Your task to perform on an android device: View the shopping cart on amazon. Add usb-b to the cart on amazon, then select checkout. Image 0: 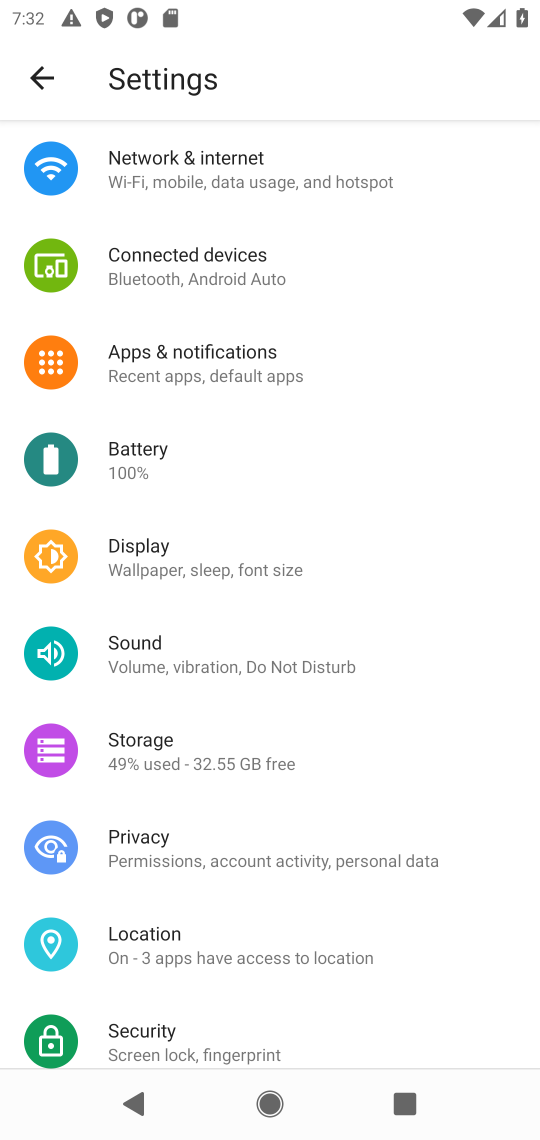
Step 0: press home button
Your task to perform on an android device: View the shopping cart on amazon. Add usb-b to the cart on amazon, then select checkout. Image 1: 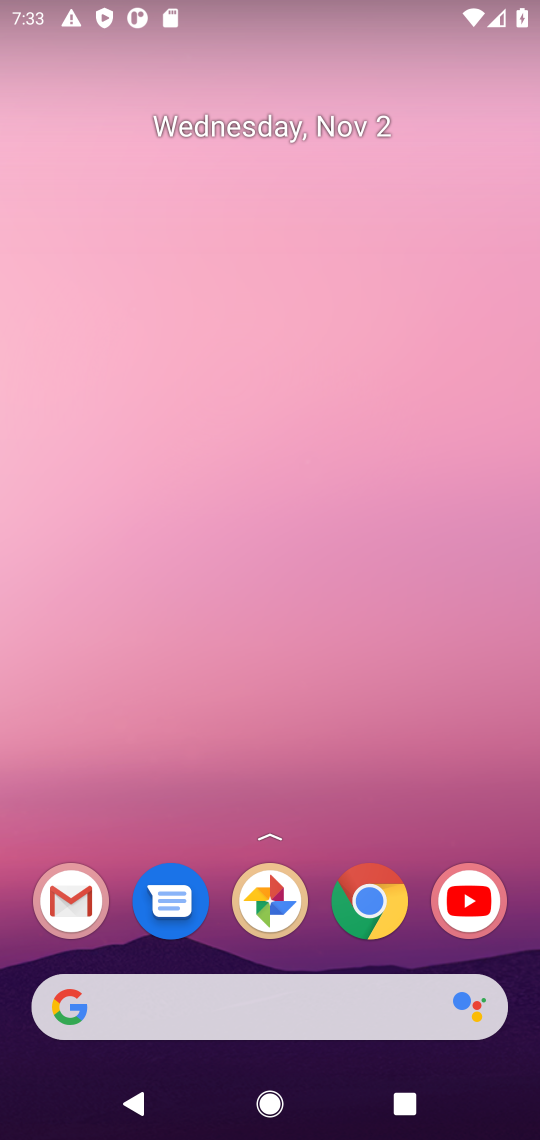
Step 1: click (364, 896)
Your task to perform on an android device: View the shopping cart on amazon. Add usb-b to the cart on amazon, then select checkout. Image 2: 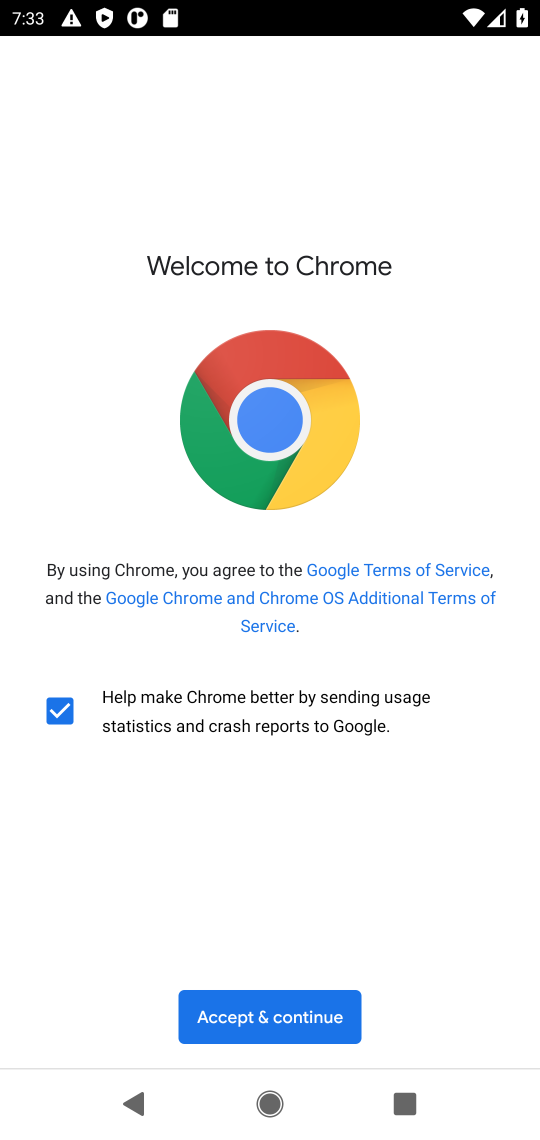
Step 2: click (271, 1034)
Your task to perform on an android device: View the shopping cart on amazon. Add usb-b to the cart on amazon, then select checkout. Image 3: 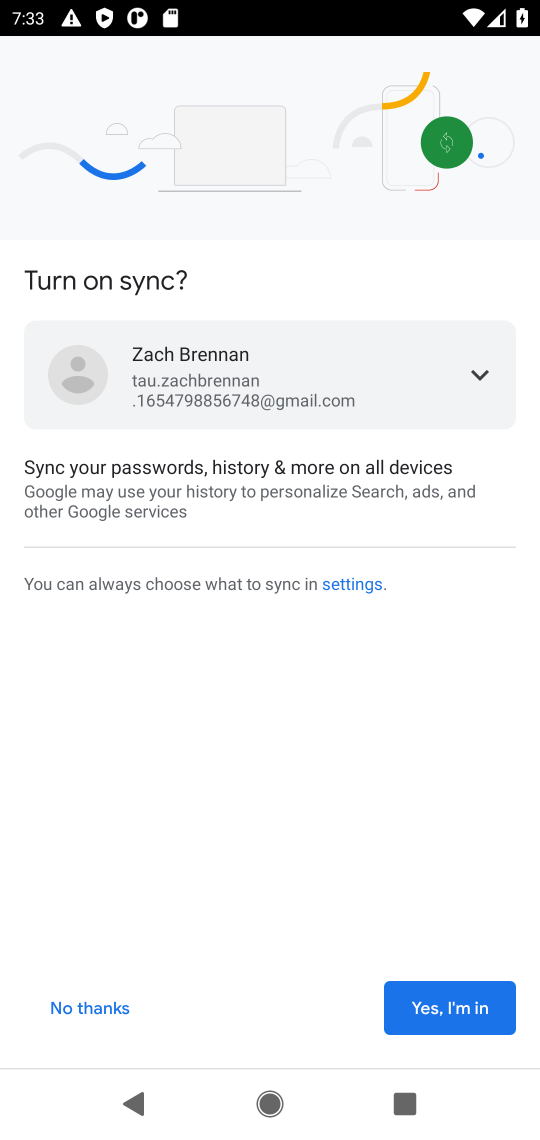
Step 3: click (74, 1011)
Your task to perform on an android device: View the shopping cart on amazon. Add usb-b to the cart on amazon, then select checkout. Image 4: 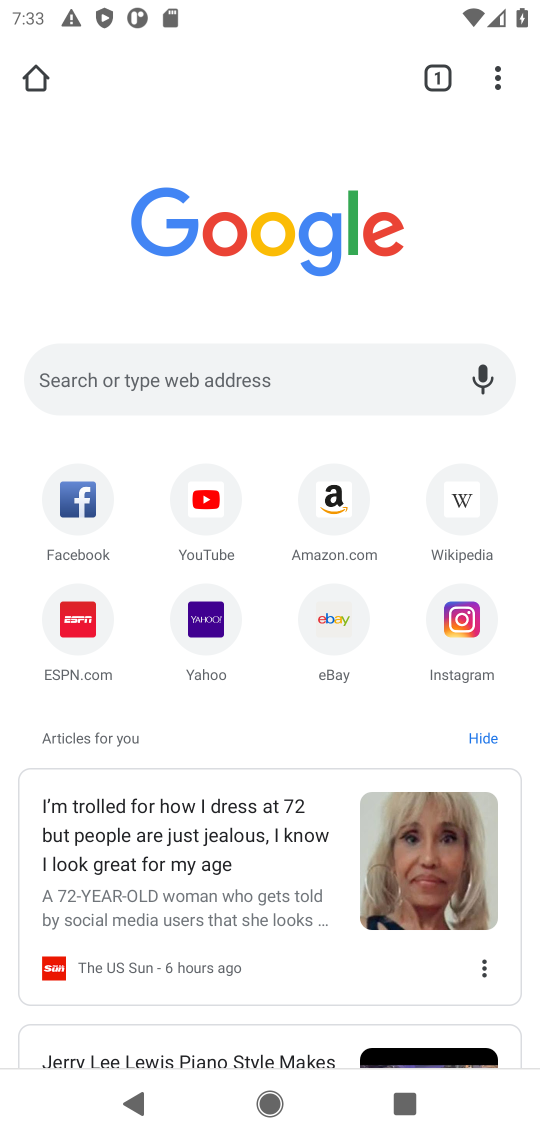
Step 4: click (322, 496)
Your task to perform on an android device: View the shopping cart on amazon. Add usb-b to the cart on amazon, then select checkout. Image 5: 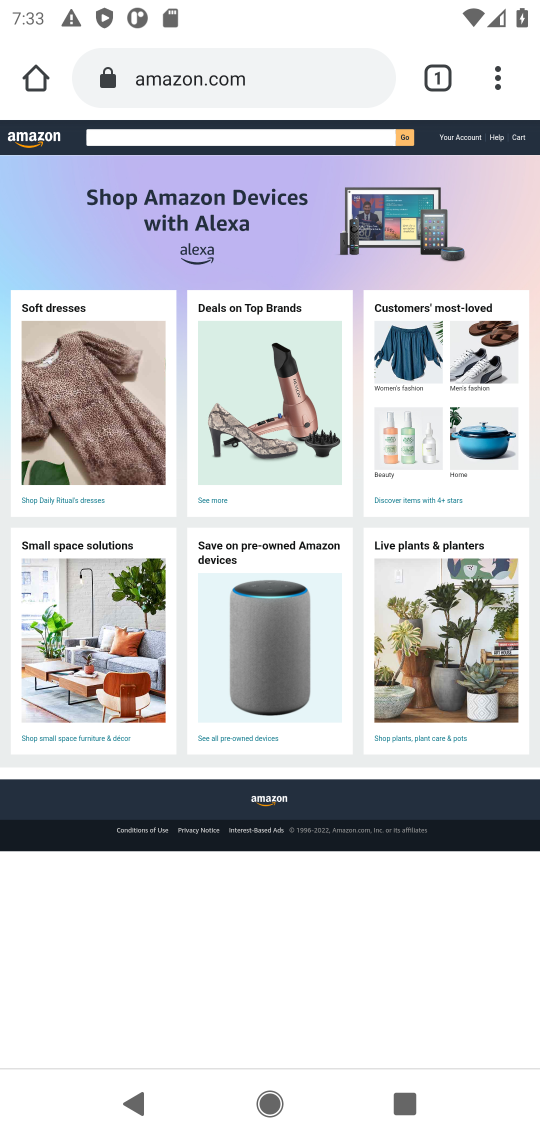
Step 5: press back button
Your task to perform on an android device: View the shopping cart on amazon. Add usb-b to the cart on amazon, then select checkout. Image 6: 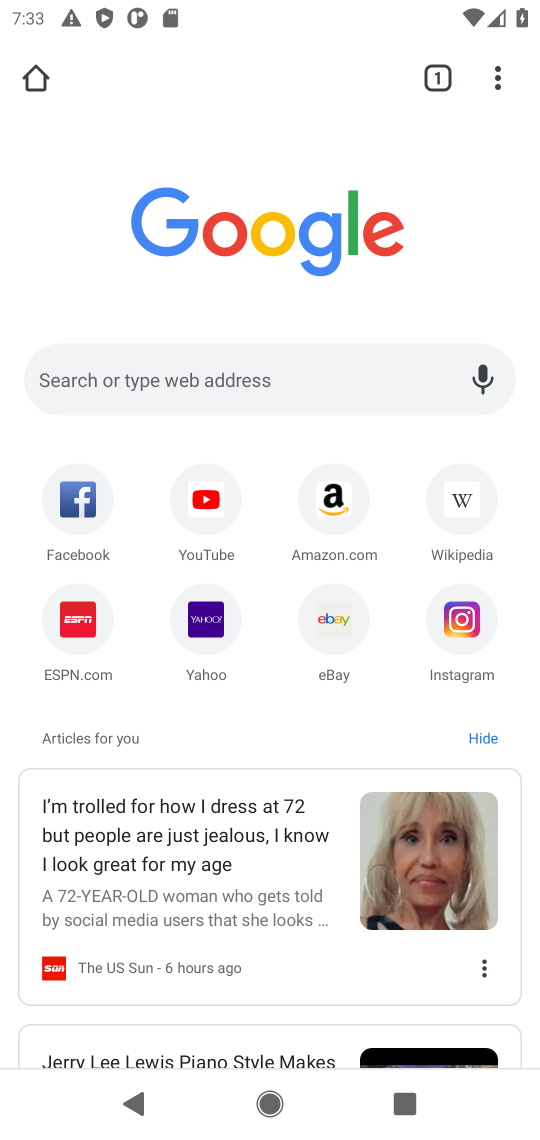
Step 6: click (285, 364)
Your task to perform on an android device: View the shopping cart on amazon. Add usb-b to the cart on amazon, then select checkout. Image 7: 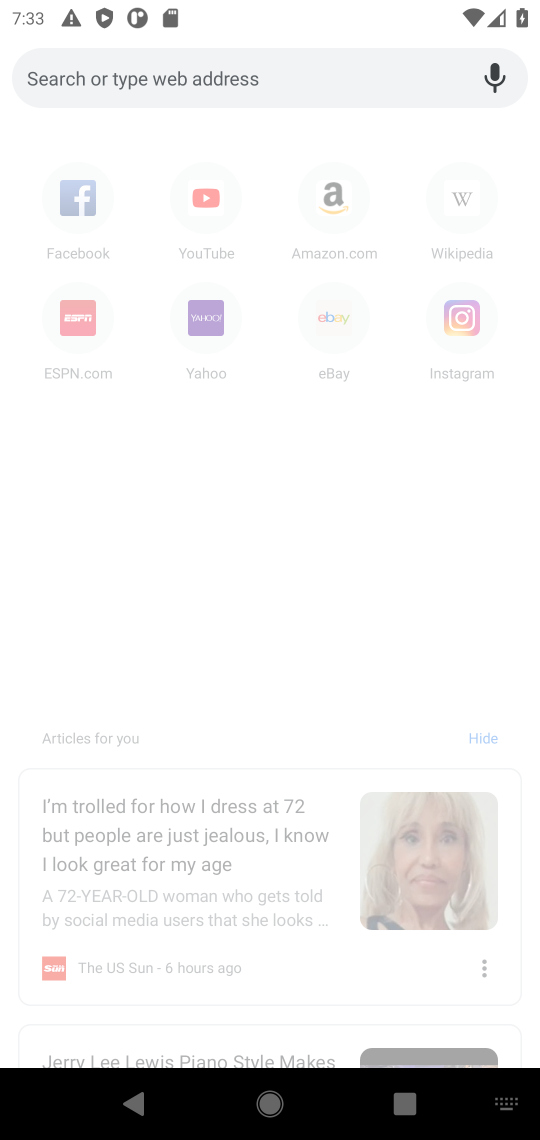
Step 7: type "amazon.com"
Your task to perform on an android device: View the shopping cart on amazon. Add usb-b to the cart on amazon, then select checkout. Image 8: 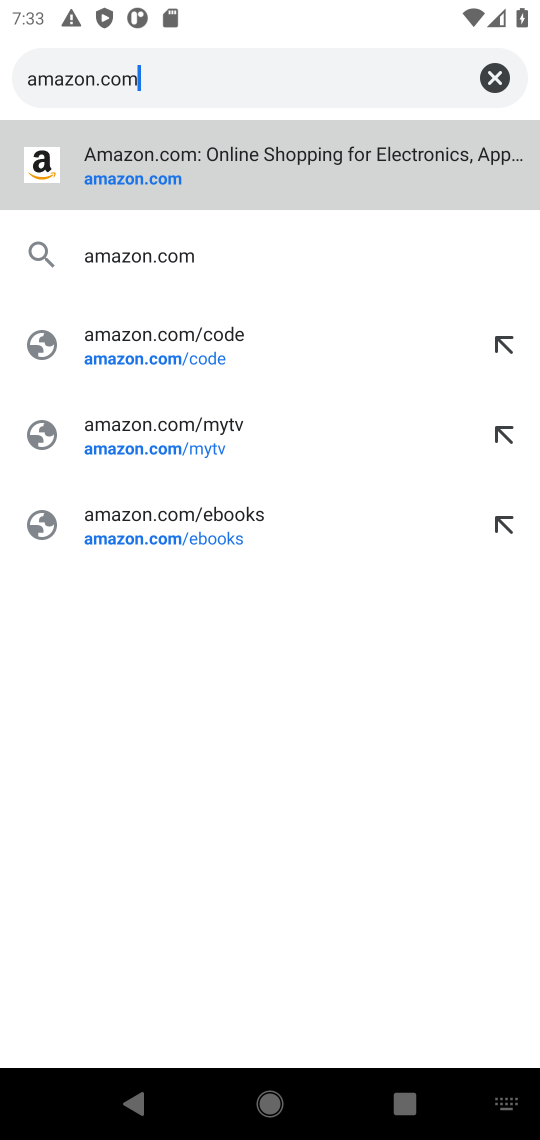
Step 8: click (122, 193)
Your task to perform on an android device: View the shopping cart on amazon. Add usb-b to the cart on amazon, then select checkout. Image 9: 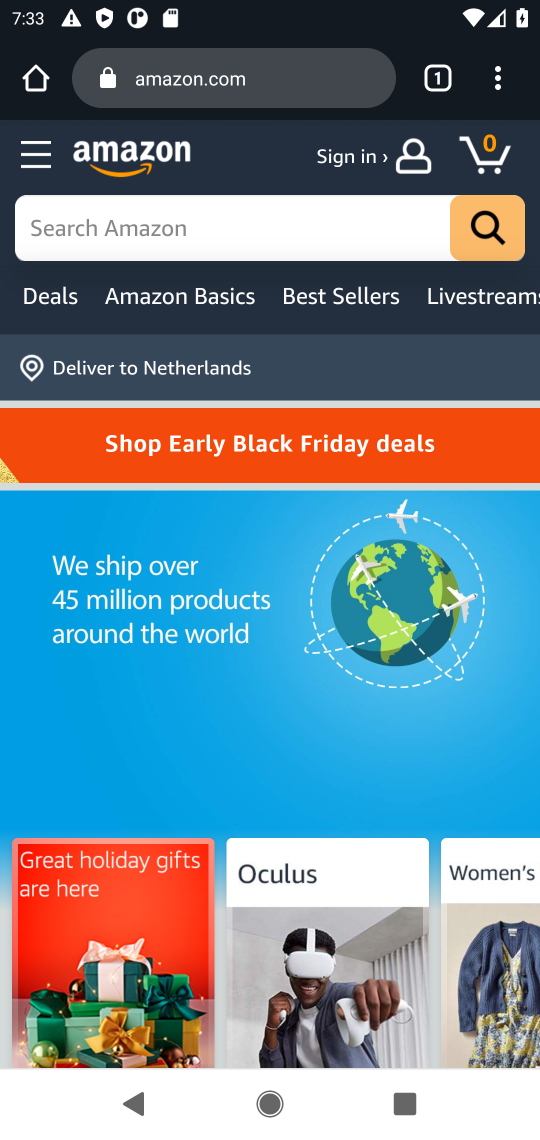
Step 9: click (499, 159)
Your task to perform on an android device: View the shopping cart on amazon. Add usb-b to the cart on amazon, then select checkout. Image 10: 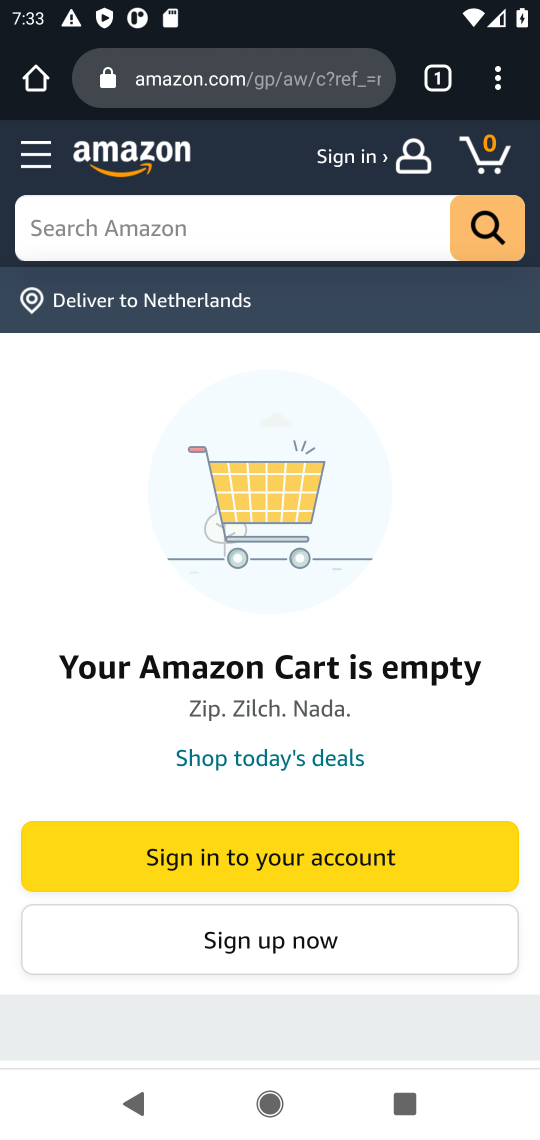
Step 10: click (259, 238)
Your task to perform on an android device: View the shopping cart on amazon. Add usb-b to the cart on amazon, then select checkout. Image 11: 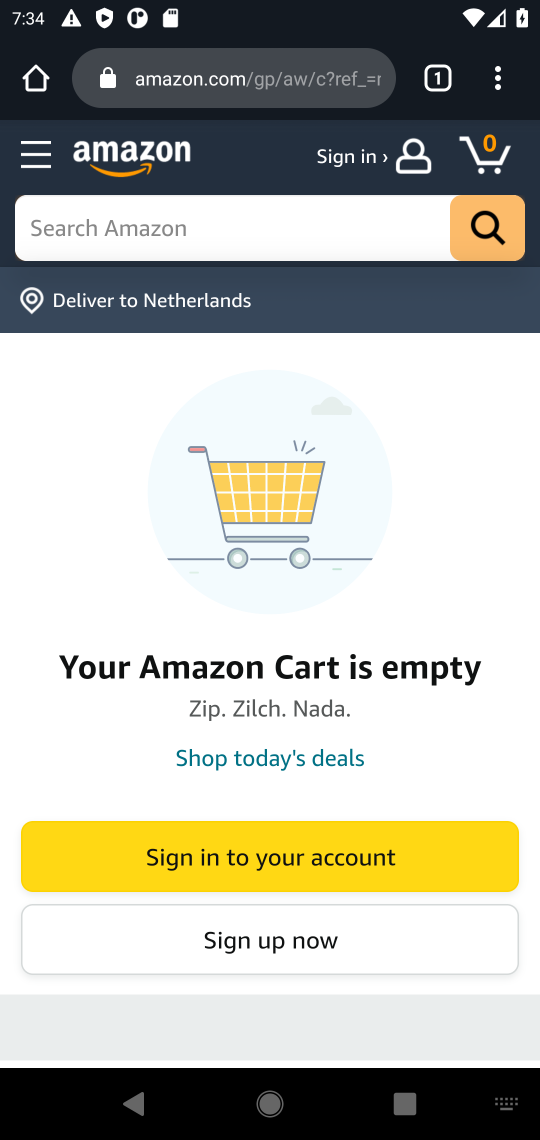
Step 11: type "usb-b"
Your task to perform on an android device: View the shopping cart on amazon. Add usb-b to the cart on amazon, then select checkout. Image 12: 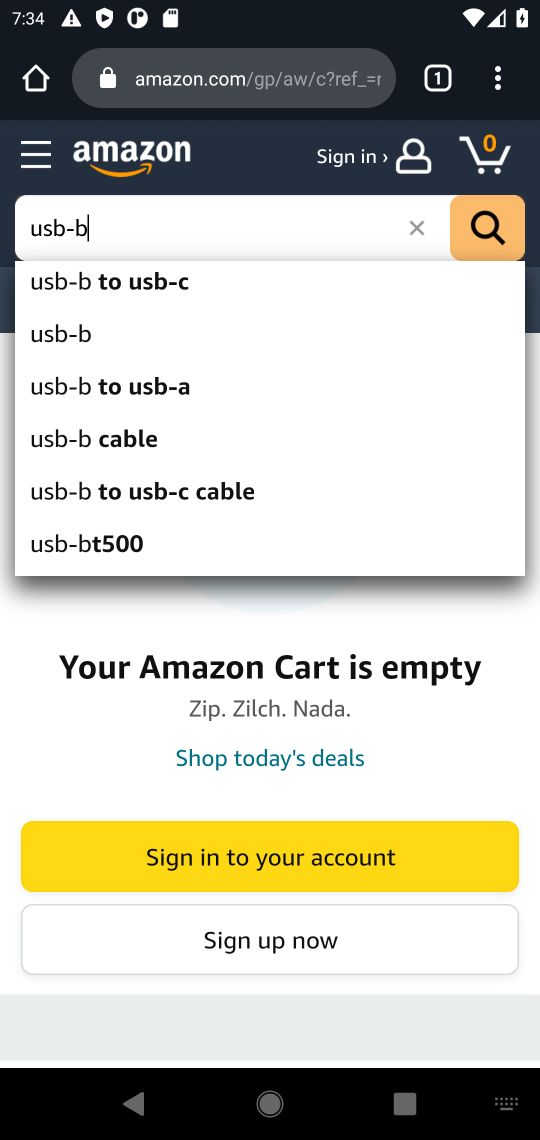
Step 12: click (79, 347)
Your task to perform on an android device: View the shopping cart on amazon. Add usb-b to the cart on amazon, then select checkout. Image 13: 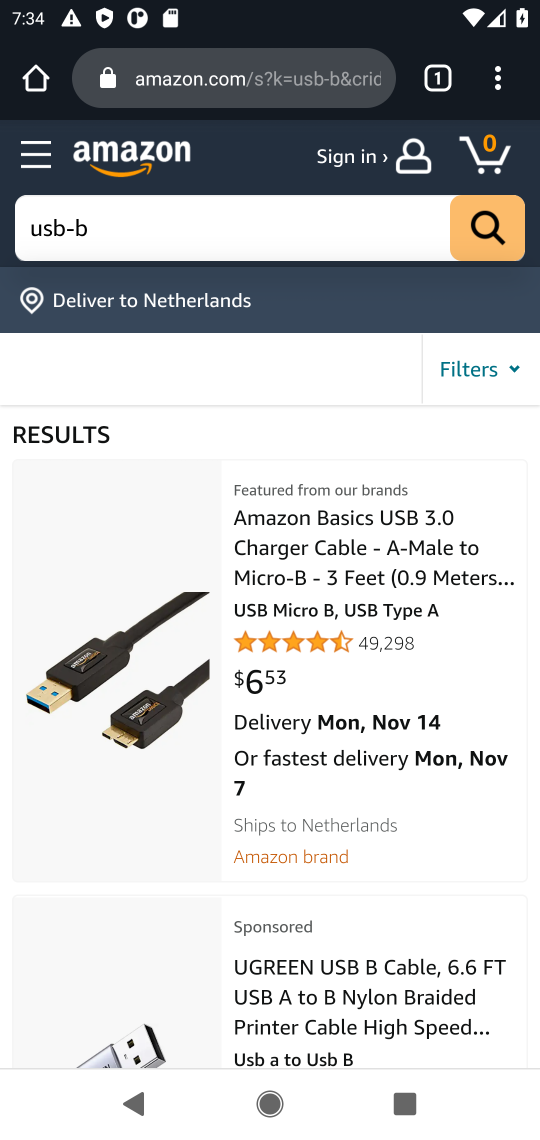
Step 13: click (163, 684)
Your task to perform on an android device: View the shopping cart on amazon. Add usb-b to the cart on amazon, then select checkout. Image 14: 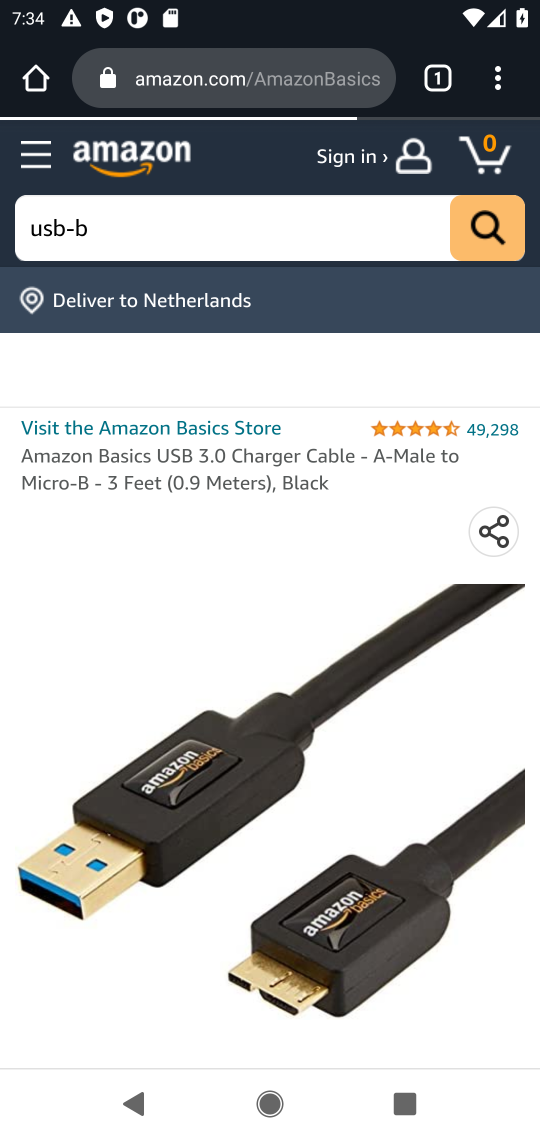
Step 14: drag from (235, 743) to (249, 303)
Your task to perform on an android device: View the shopping cart on amazon. Add usb-b to the cart on amazon, then select checkout. Image 15: 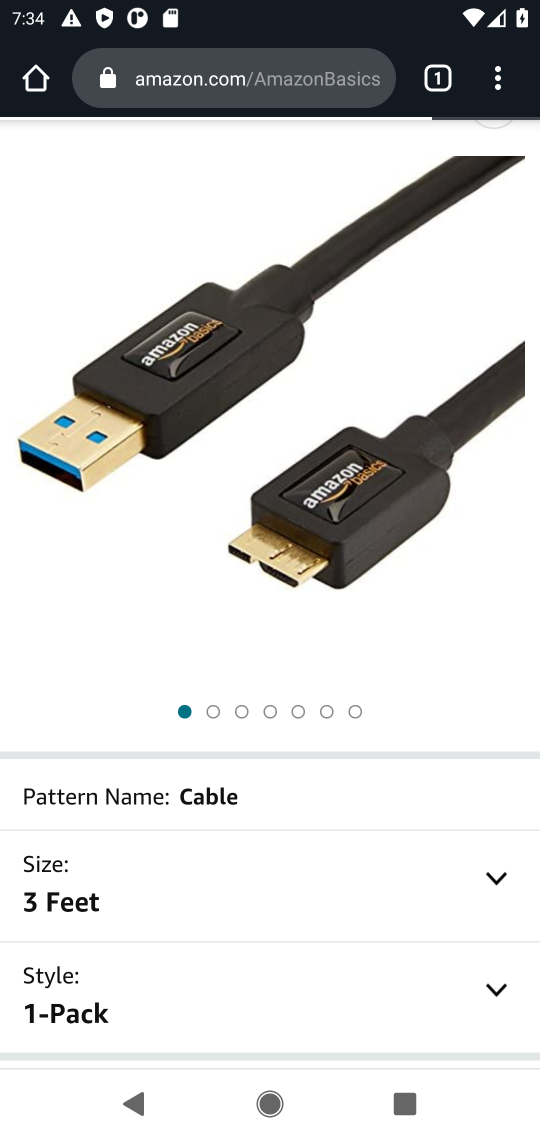
Step 15: drag from (215, 824) to (268, 330)
Your task to perform on an android device: View the shopping cart on amazon. Add usb-b to the cart on amazon, then select checkout. Image 16: 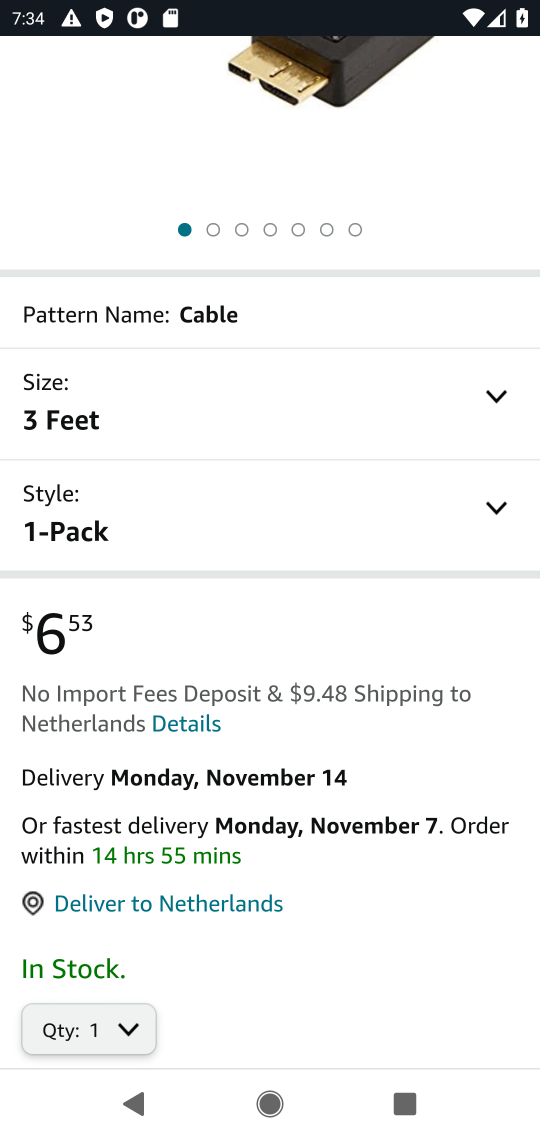
Step 16: drag from (198, 775) to (243, 354)
Your task to perform on an android device: View the shopping cart on amazon. Add usb-b to the cart on amazon, then select checkout. Image 17: 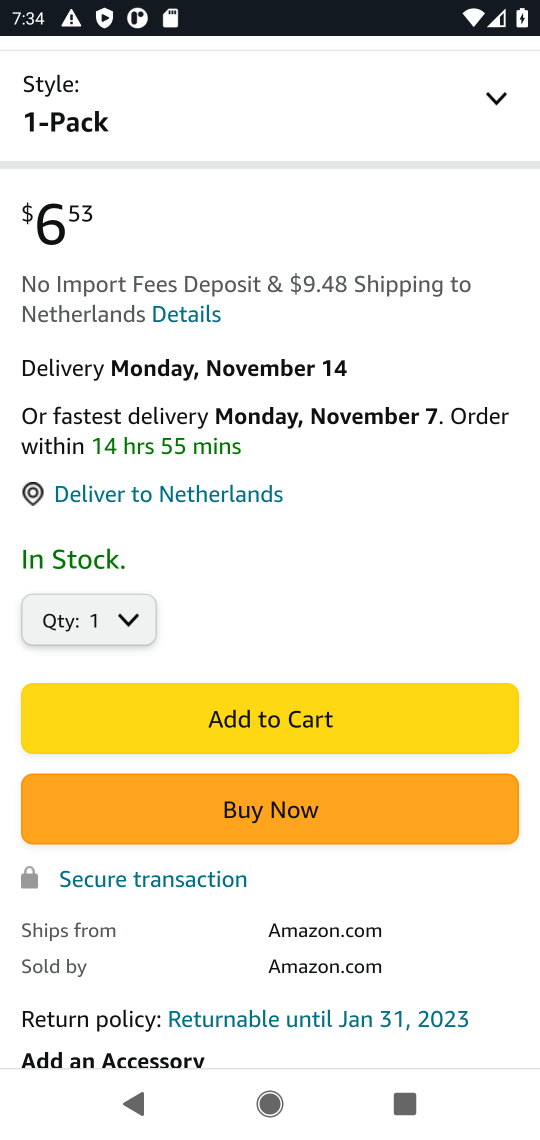
Step 17: click (252, 724)
Your task to perform on an android device: View the shopping cart on amazon. Add usb-b to the cart on amazon, then select checkout. Image 18: 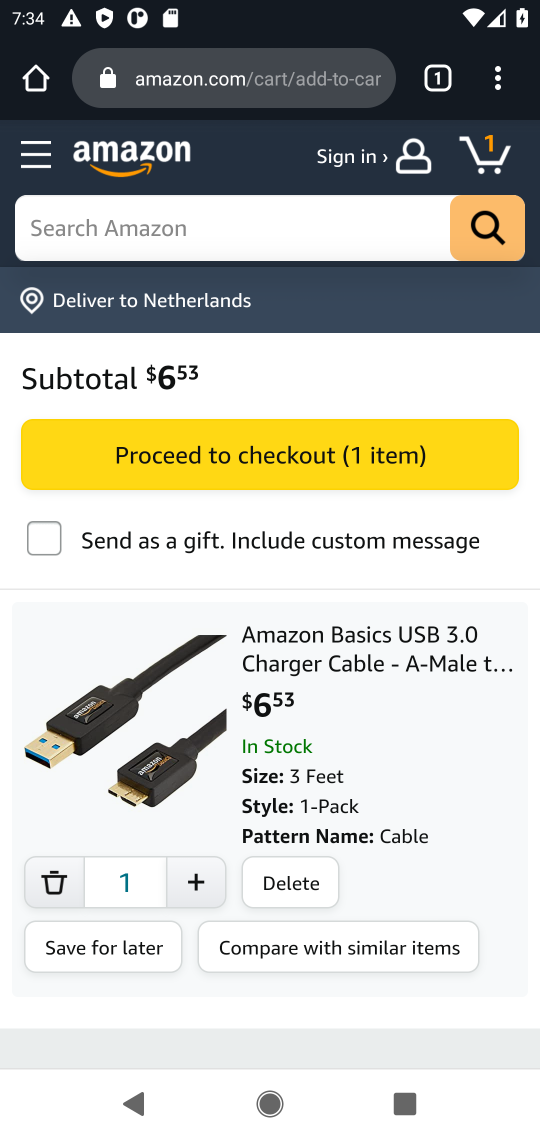
Step 18: click (252, 456)
Your task to perform on an android device: View the shopping cart on amazon. Add usb-b to the cart on amazon, then select checkout. Image 19: 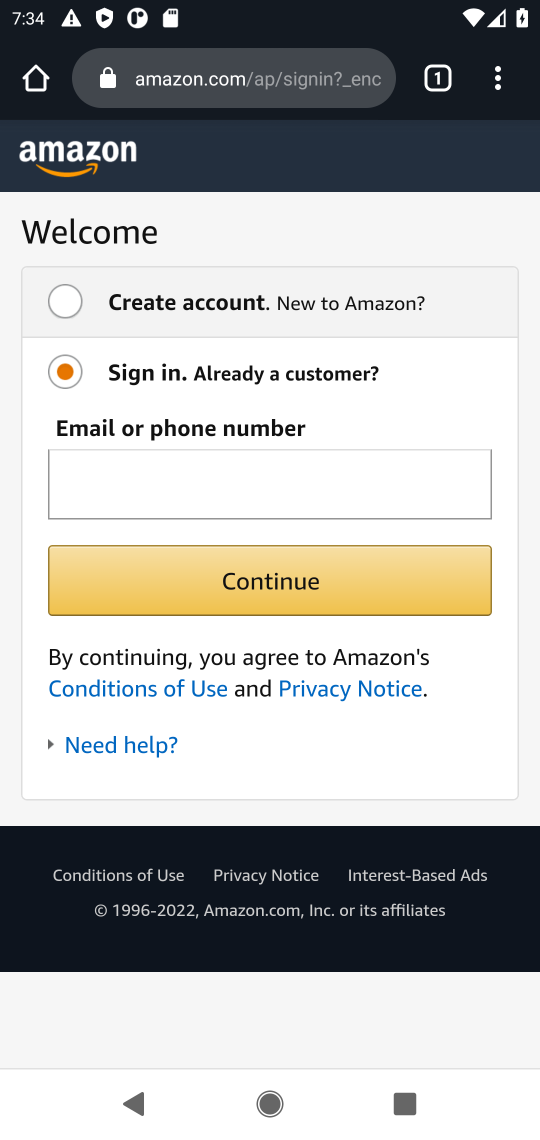
Step 19: task complete